Your task to perform on an android device: Open my contact list Image 0: 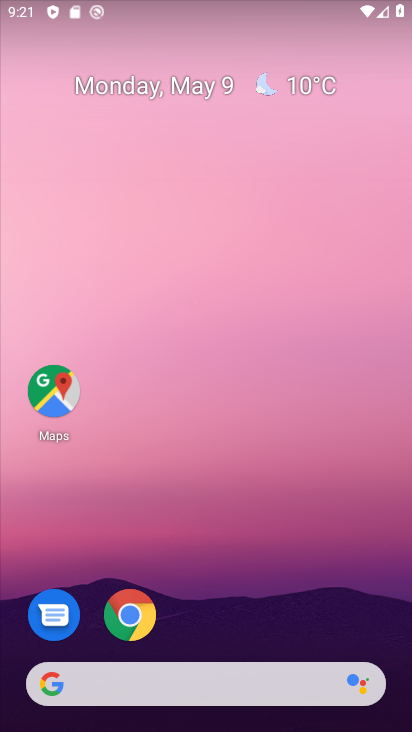
Step 0: drag from (185, 465) to (184, 48)
Your task to perform on an android device: Open my contact list Image 1: 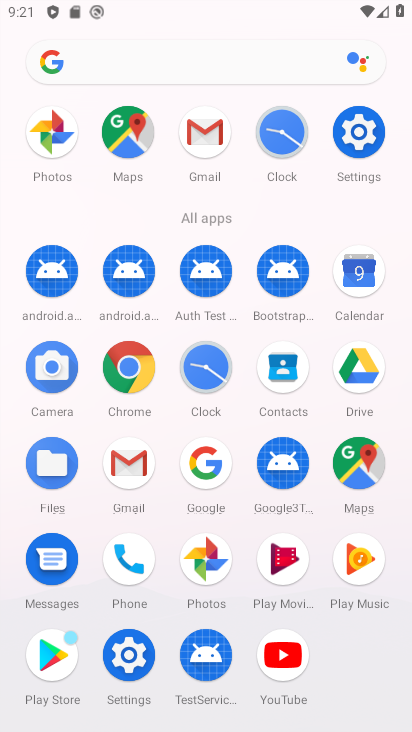
Step 1: click (293, 363)
Your task to perform on an android device: Open my contact list Image 2: 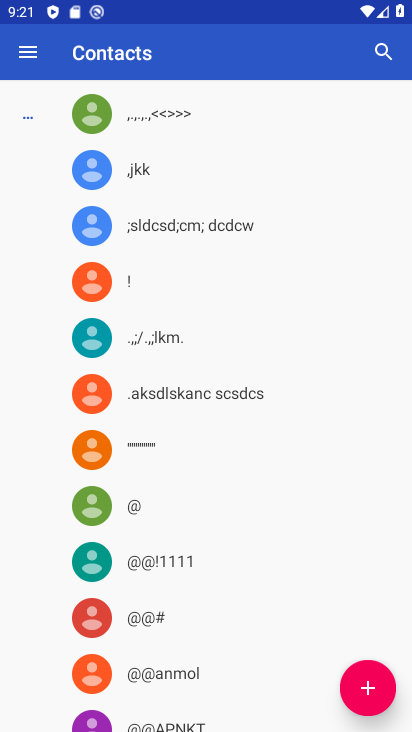
Step 2: task complete